Your task to perform on an android device: change your default location settings in chrome Image 0: 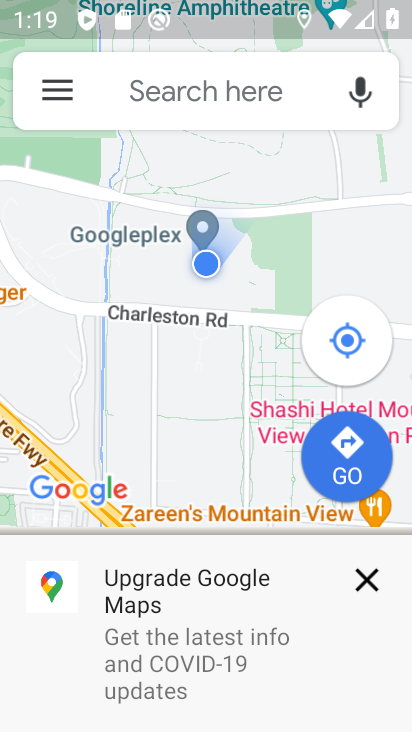
Step 0: press home button
Your task to perform on an android device: change your default location settings in chrome Image 1: 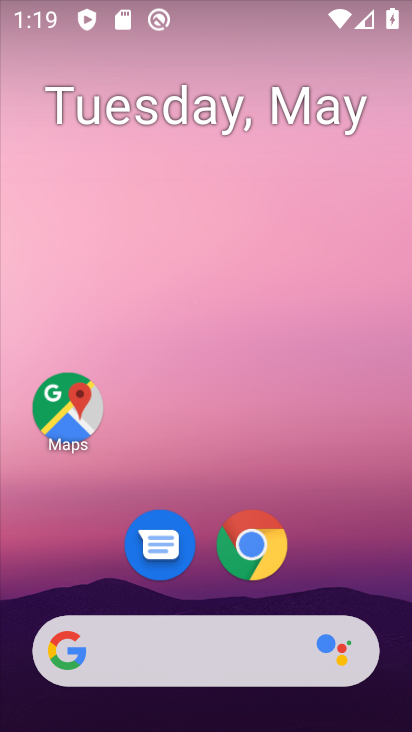
Step 1: click (256, 548)
Your task to perform on an android device: change your default location settings in chrome Image 2: 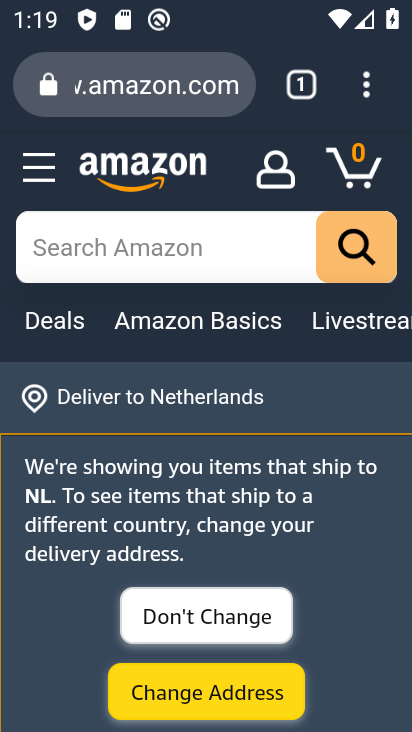
Step 2: click (362, 95)
Your task to perform on an android device: change your default location settings in chrome Image 3: 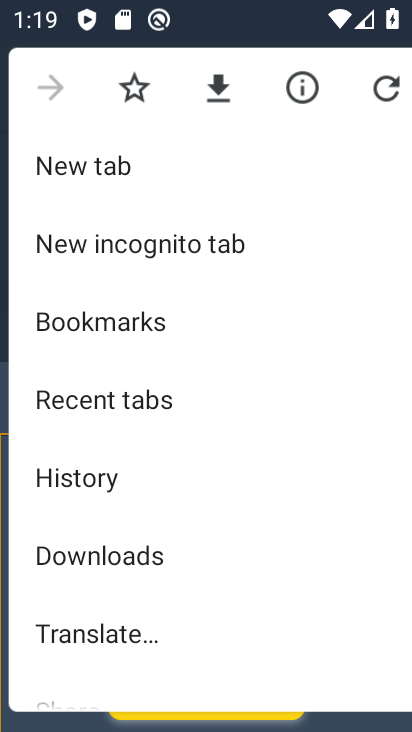
Step 3: drag from (192, 528) to (249, 84)
Your task to perform on an android device: change your default location settings in chrome Image 4: 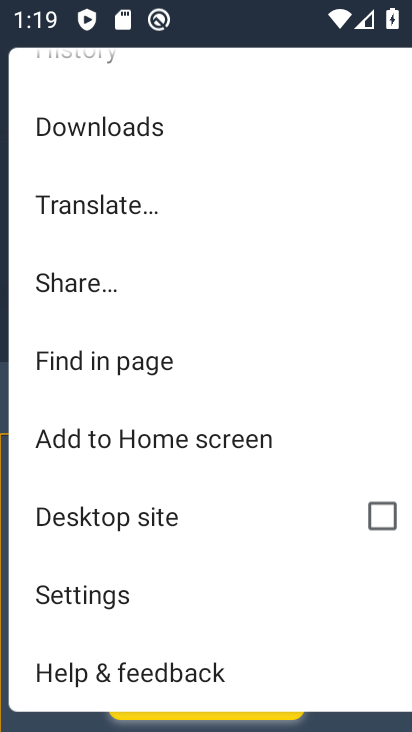
Step 4: click (119, 591)
Your task to perform on an android device: change your default location settings in chrome Image 5: 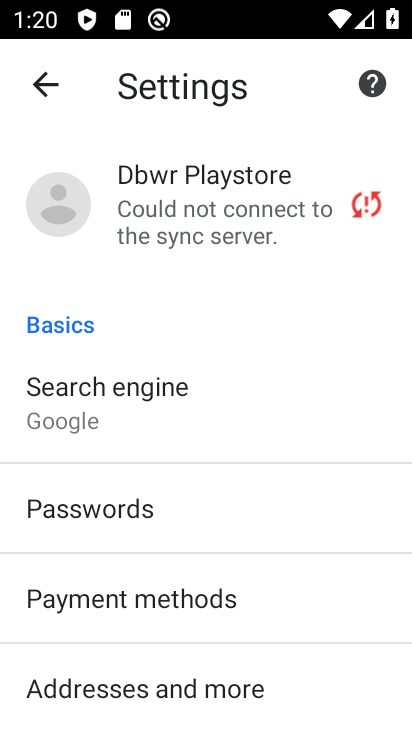
Step 5: drag from (284, 650) to (275, 133)
Your task to perform on an android device: change your default location settings in chrome Image 6: 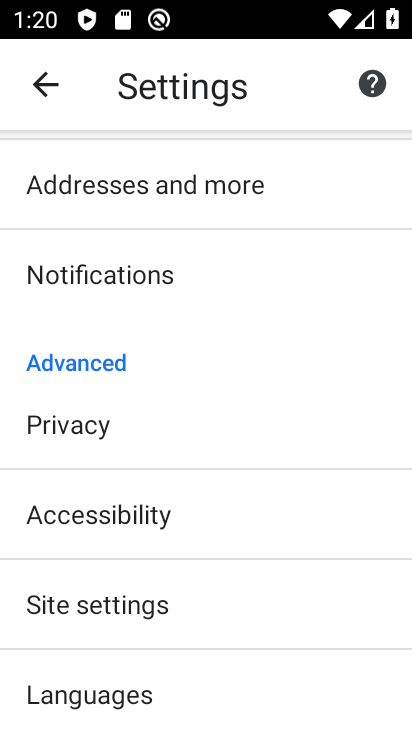
Step 6: click (125, 610)
Your task to perform on an android device: change your default location settings in chrome Image 7: 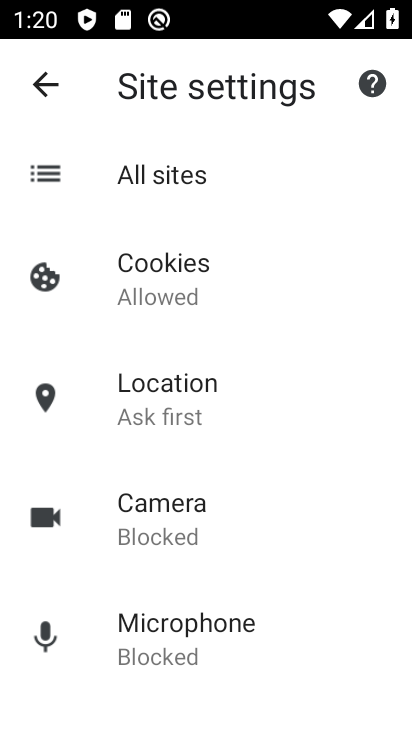
Step 7: click (177, 398)
Your task to perform on an android device: change your default location settings in chrome Image 8: 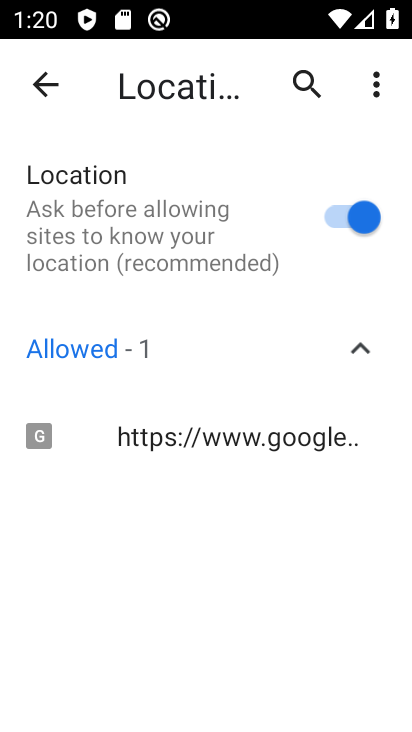
Step 8: click (334, 215)
Your task to perform on an android device: change your default location settings in chrome Image 9: 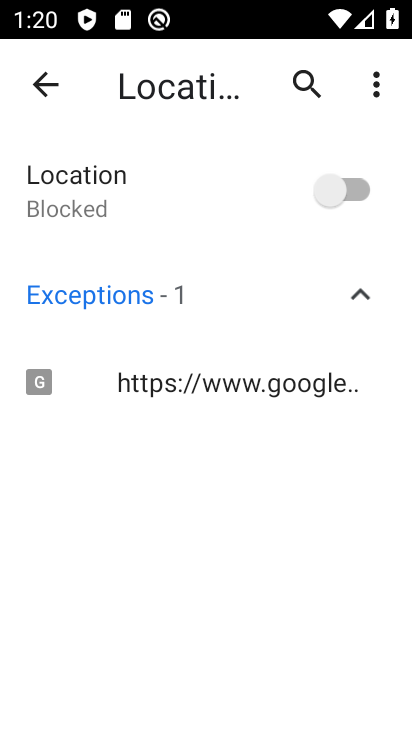
Step 9: task complete